Your task to perform on an android device: Open Wikipedia Image 0: 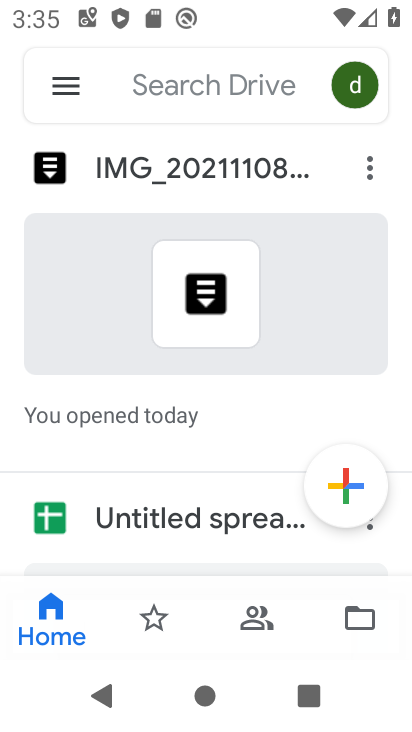
Step 0: press home button
Your task to perform on an android device: Open Wikipedia Image 1: 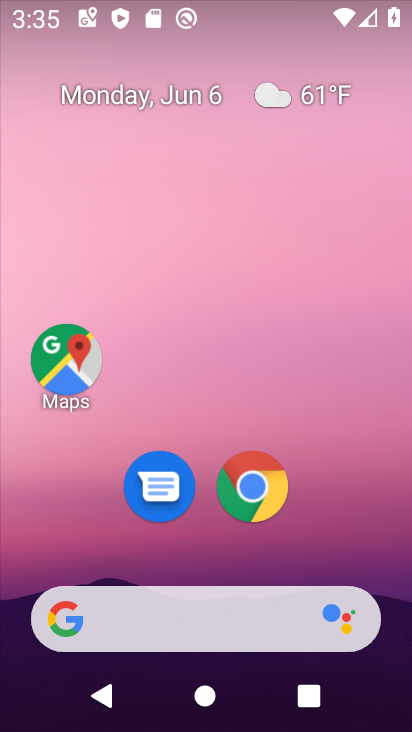
Step 1: drag from (336, 485) to (305, 105)
Your task to perform on an android device: Open Wikipedia Image 2: 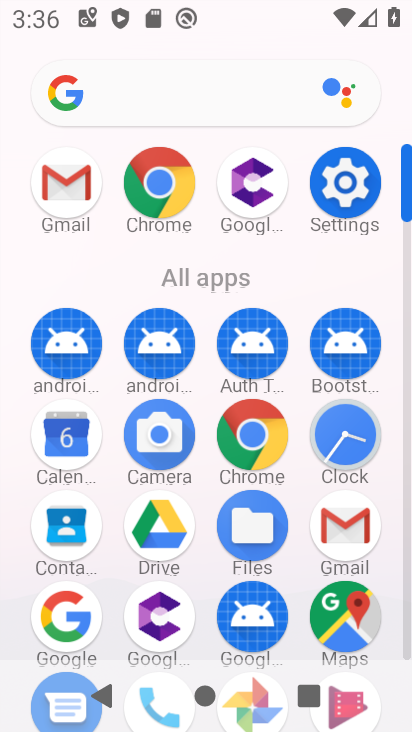
Step 2: click (156, 193)
Your task to perform on an android device: Open Wikipedia Image 3: 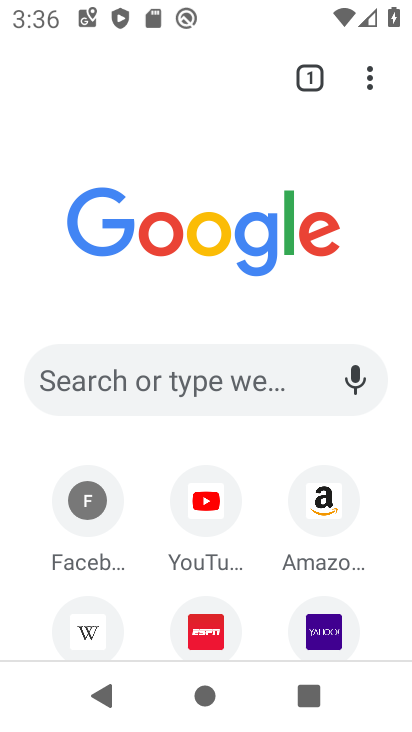
Step 3: click (98, 613)
Your task to perform on an android device: Open Wikipedia Image 4: 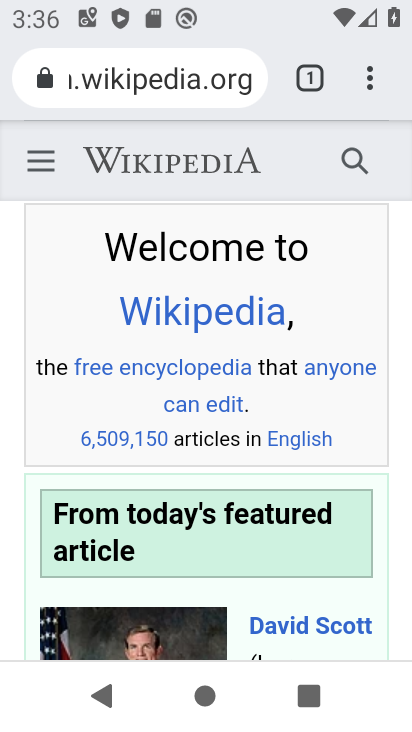
Step 4: task complete